Your task to perform on an android device: open a new tab in the chrome app Image 0: 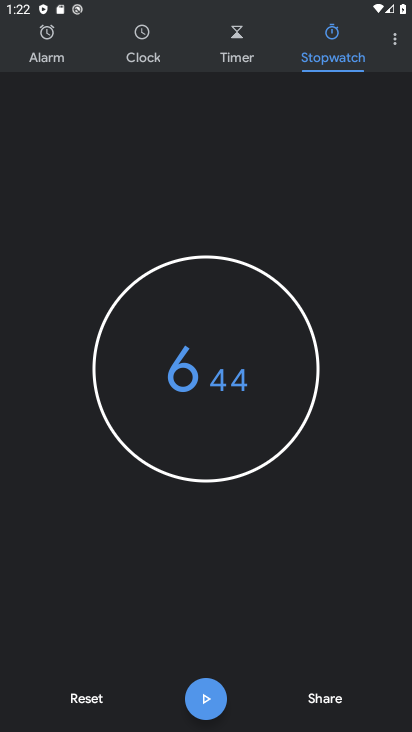
Step 0: press home button
Your task to perform on an android device: open a new tab in the chrome app Image 1: 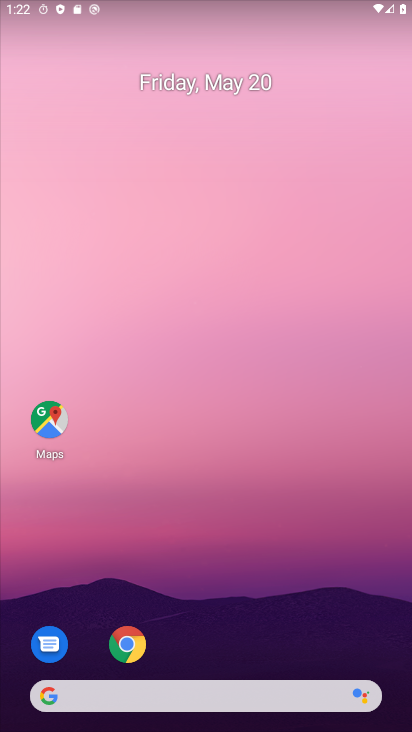
Step 1: click (120, 646)
Your task to perform on an android device: open a new tab in the chrome app Image 2: 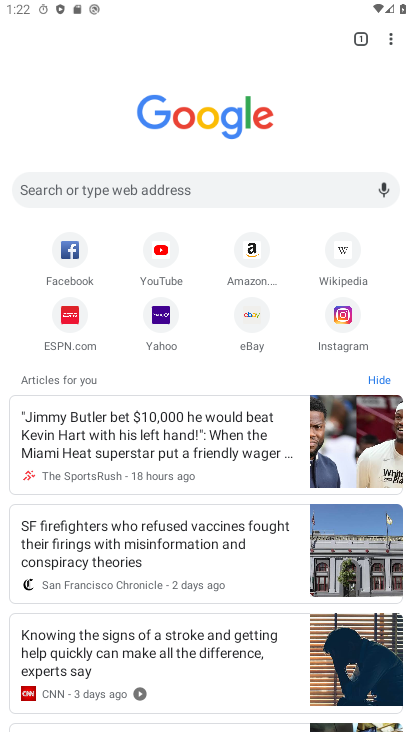
Step 2: click (368, 38)
Your task to perform on an android device: open a new tab in the chrome app Image 3: 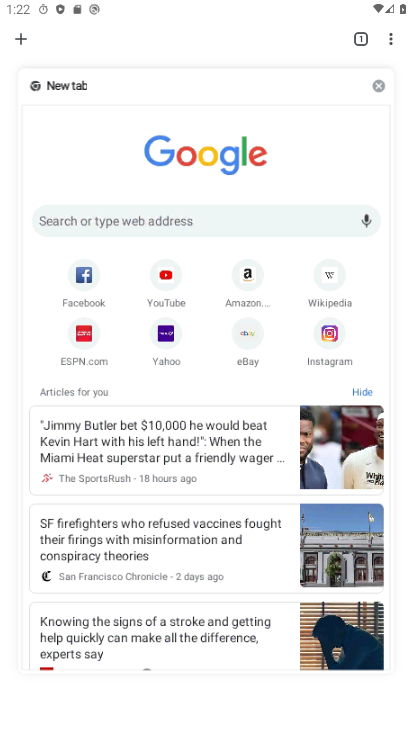
Step 3: click (11, 40)
Your task to perform on an android device: open a new tab in the chrome app Image 4: 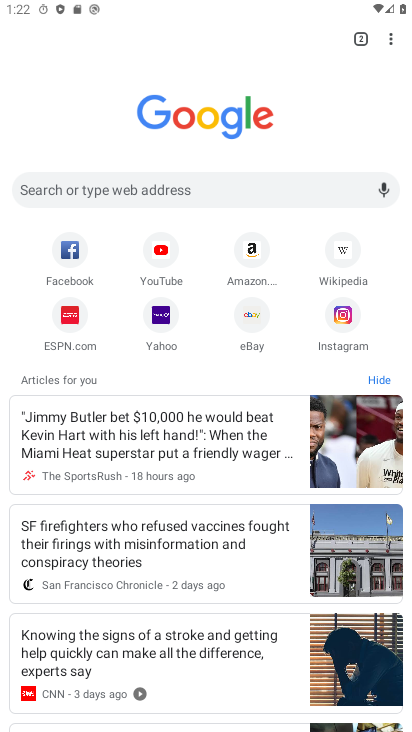
Step 4: task complete